Your task to perform on an android device: Open ESPN.com Image 0: 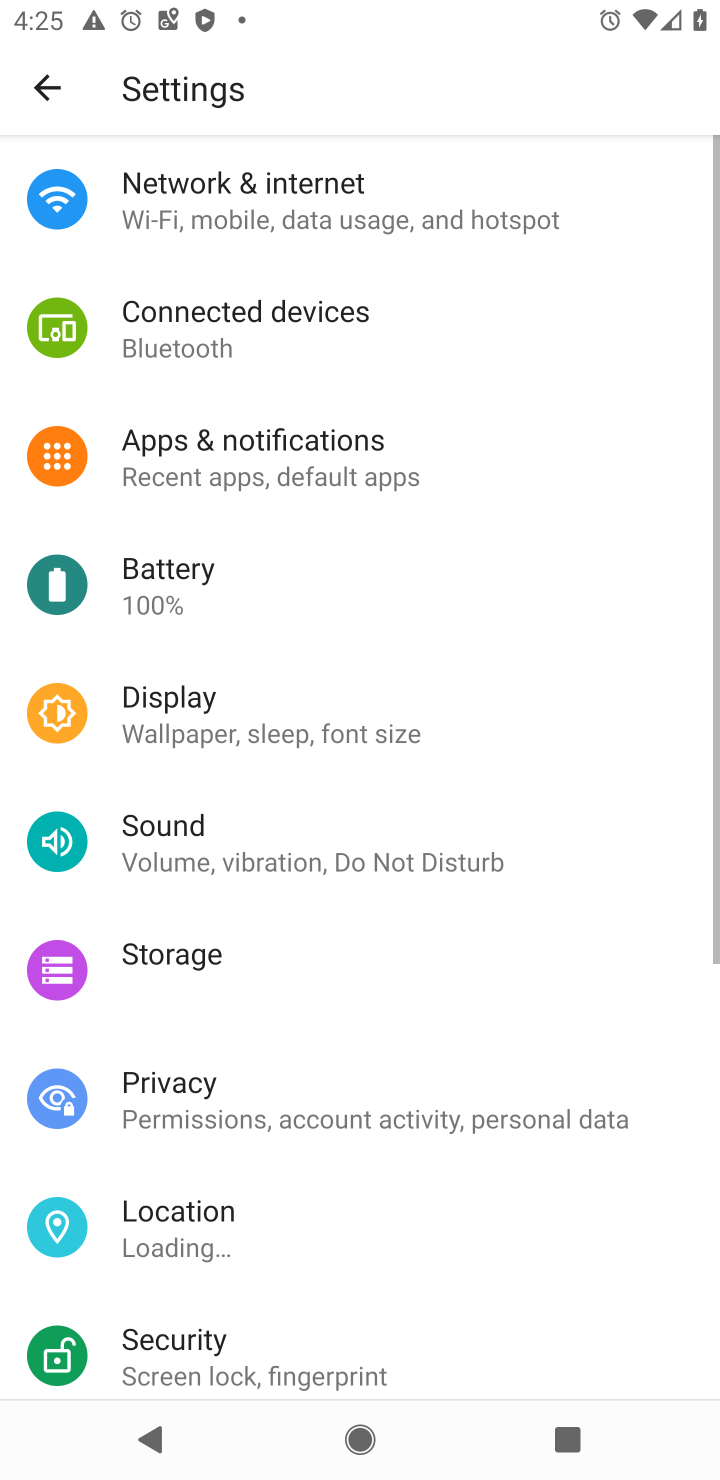
Step 0: press home button
Your task to perform on an android device: Open ESPN.com Image 1: 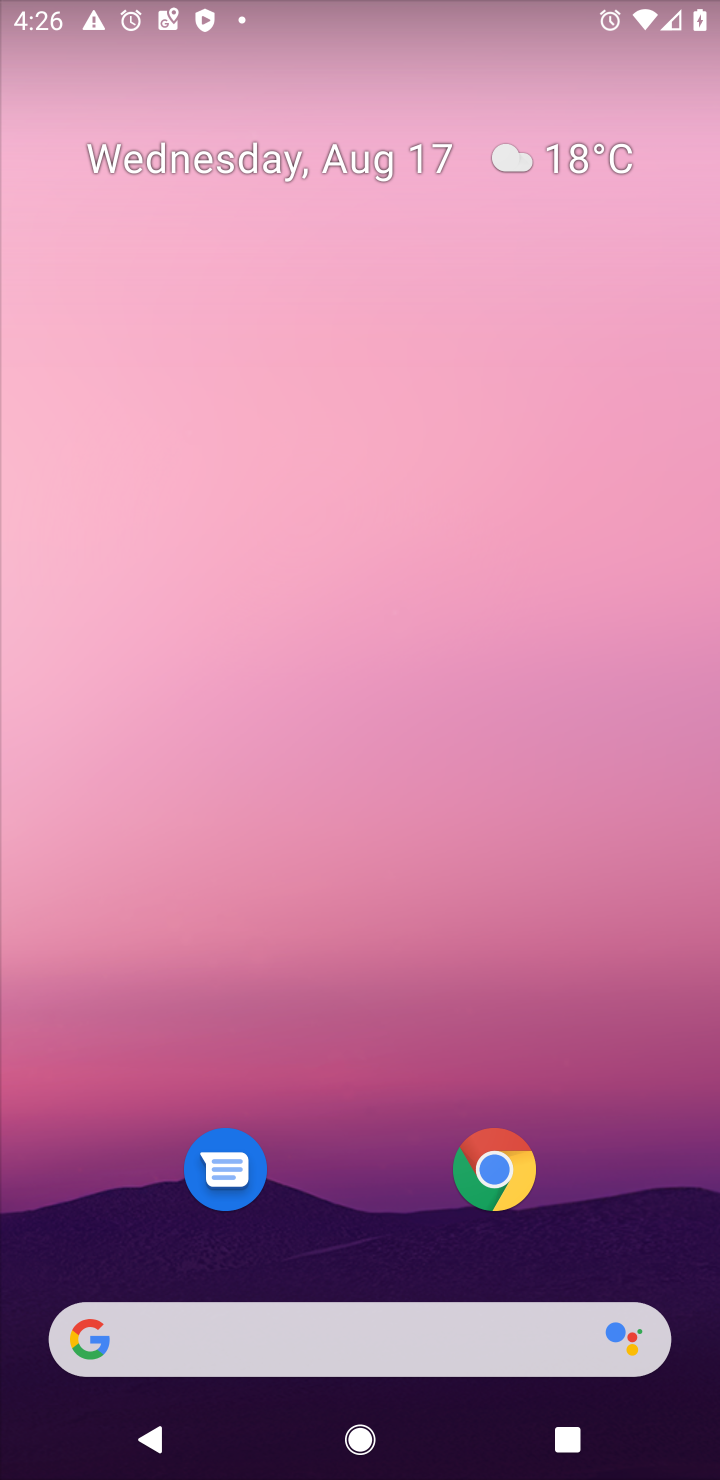
Step 1: drag from (342, 1183) to (477, 193)
Your task to perform on an android device: Open ESPN.com Image 2: 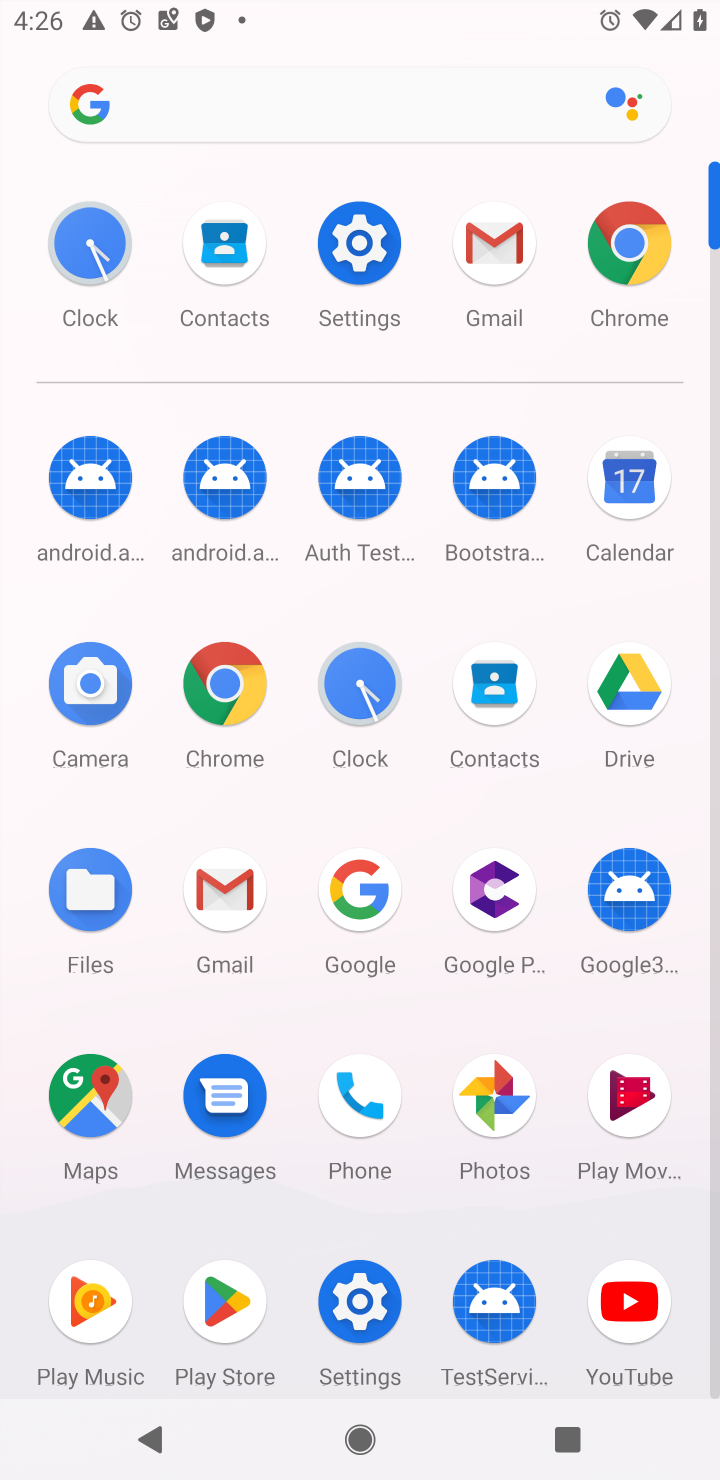
Step 2: click (221, 694)
Your task to perform on an android device: Open ESPN.com Image 3: 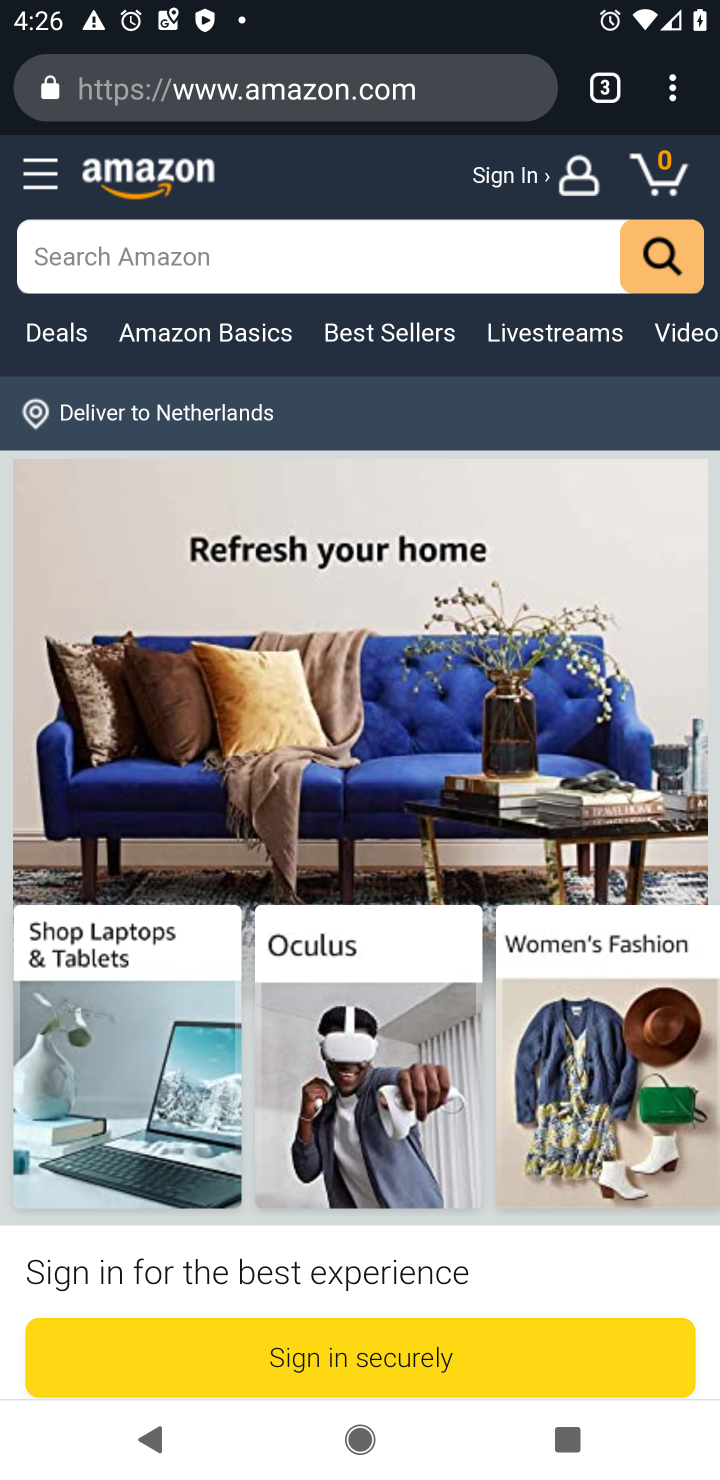
Step 3: click (246, 94)
Your task to perform on an android device: Open ESPN.com Image 4: 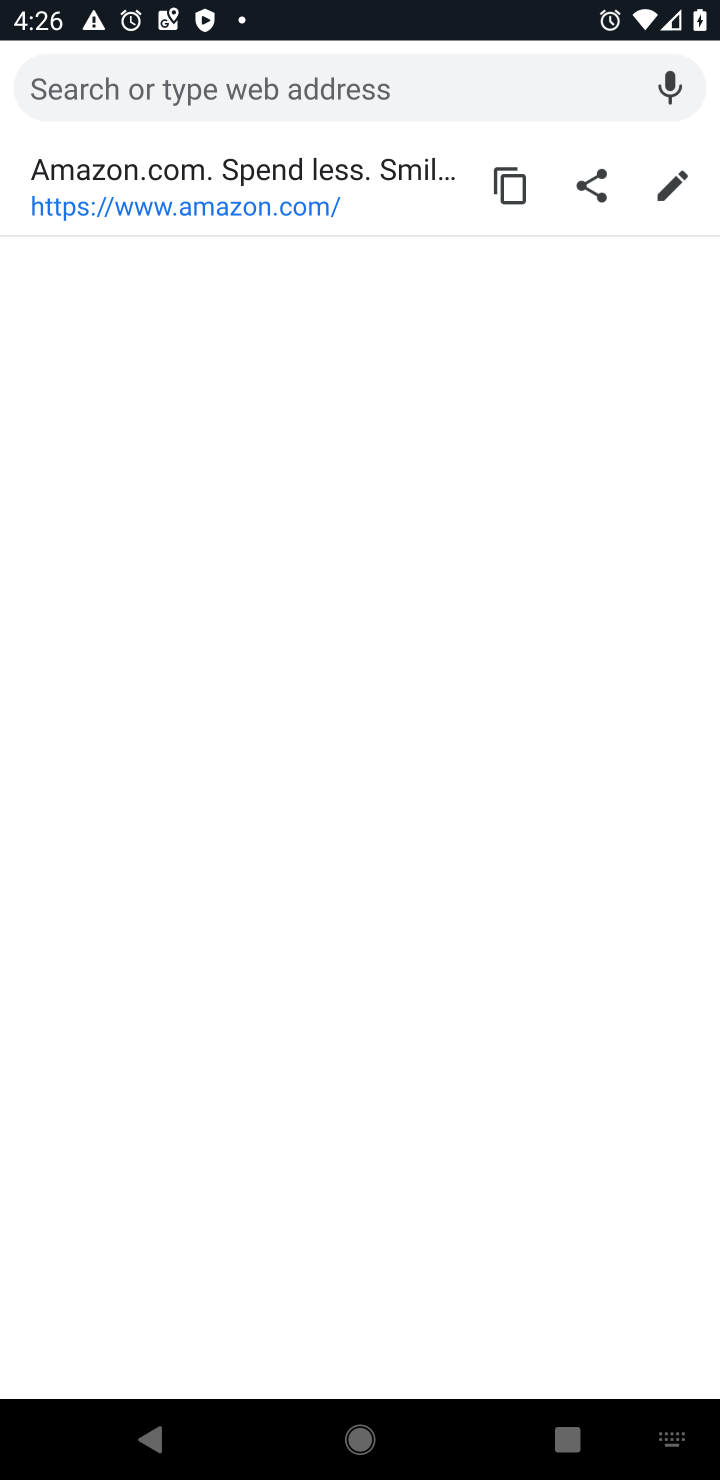
Step 4: type " ESPN.com"
Your task to perform on an android device: Open ESPN.com Image 5: 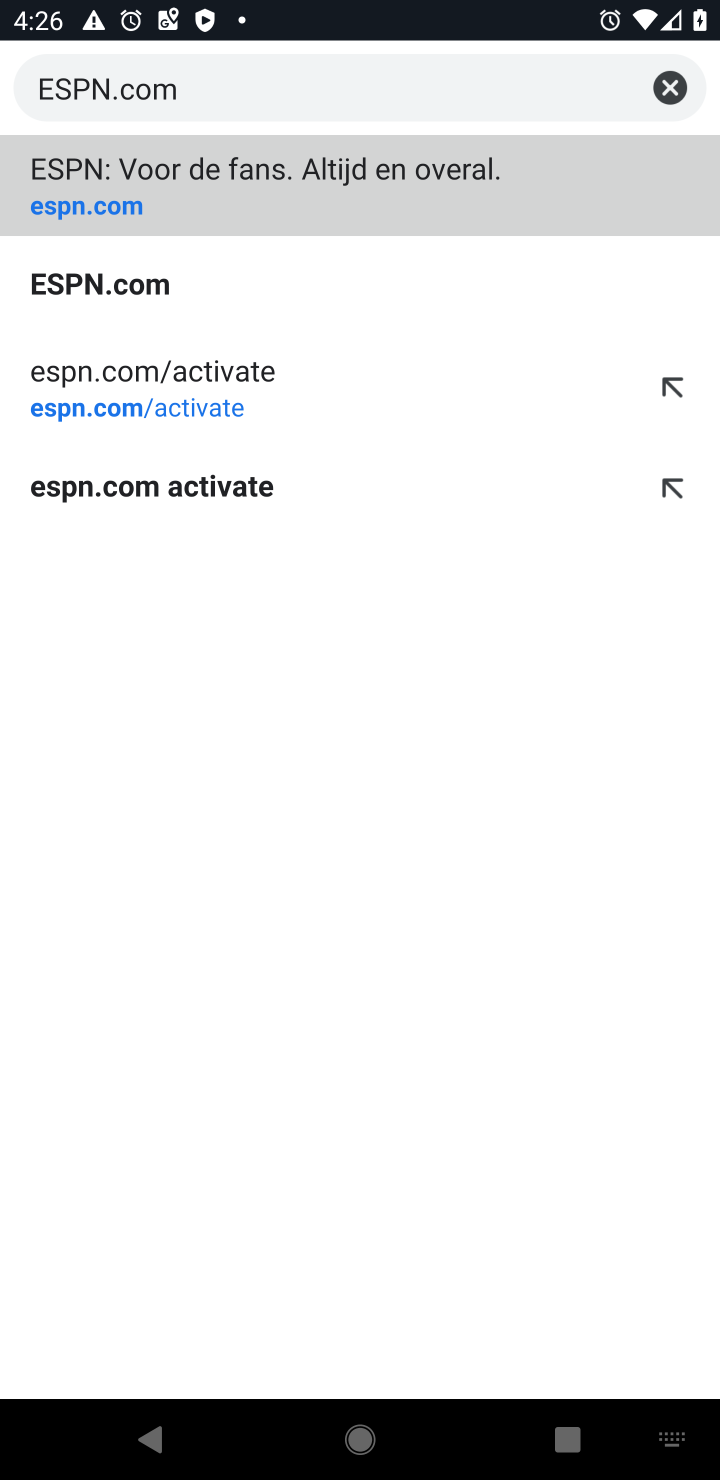
Step 5: click (90, 199)
Your task to perform on an android device: Open ESPN.com Image 6: 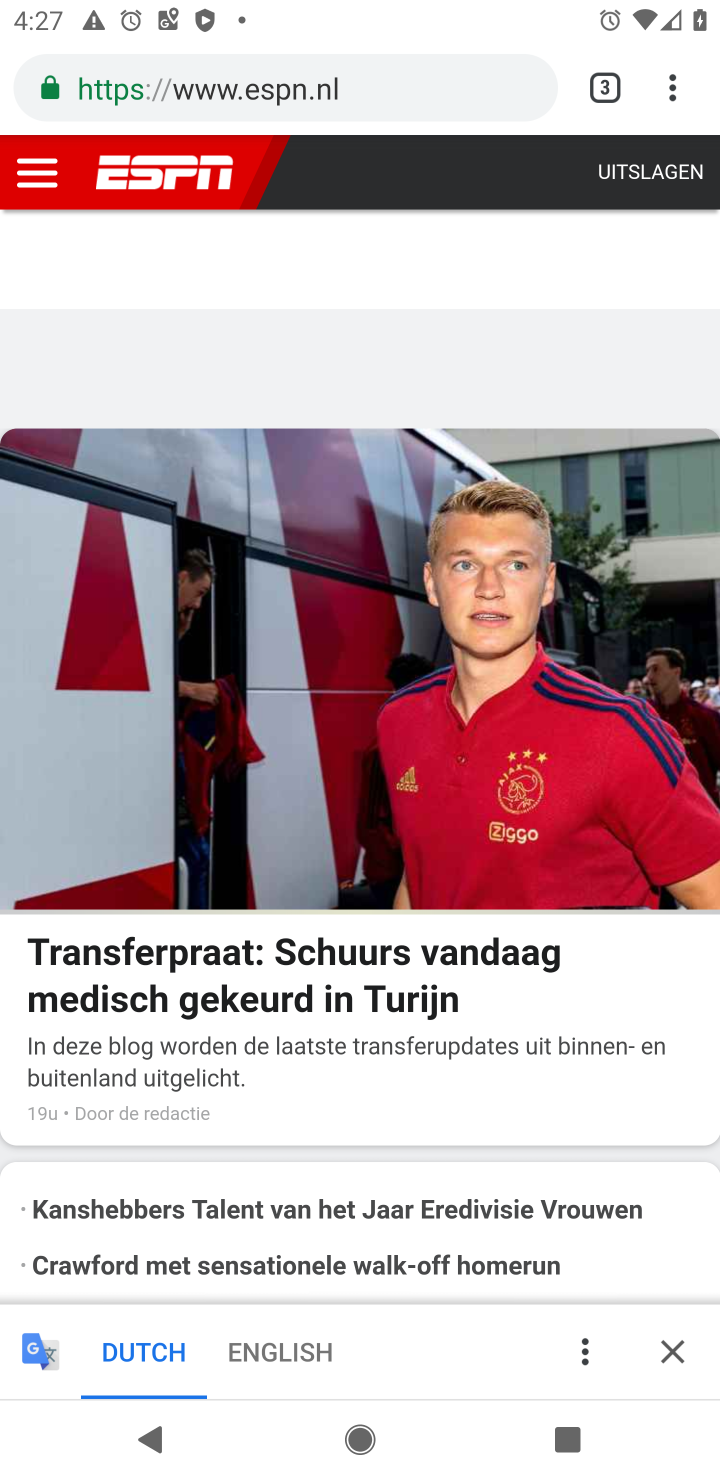
Step 6: task complete